Your task to perform on an android device: What's the weather today? Image 0: 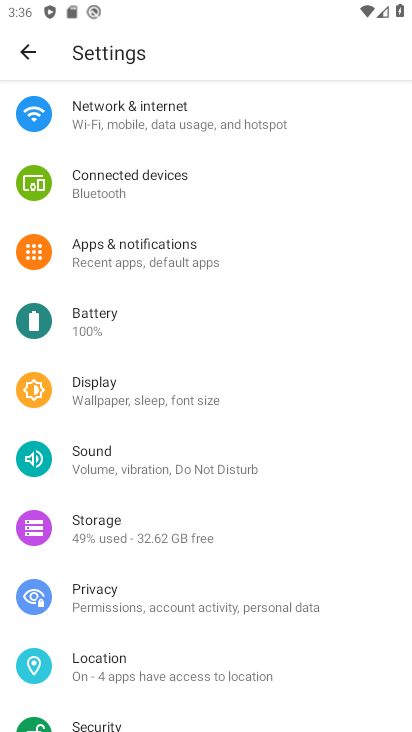
Step 0: press home button
Your task to perform on an android device: What's the weather today? Image 1: 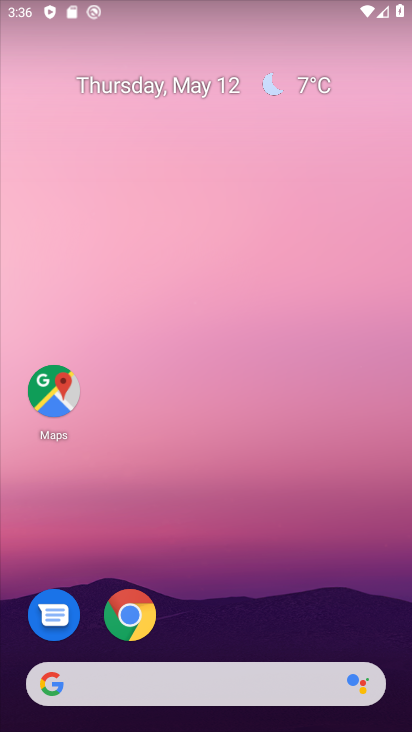
Step 1: click (299, 77)
Your task to perform on an android device: What's the weather today? Image 2: 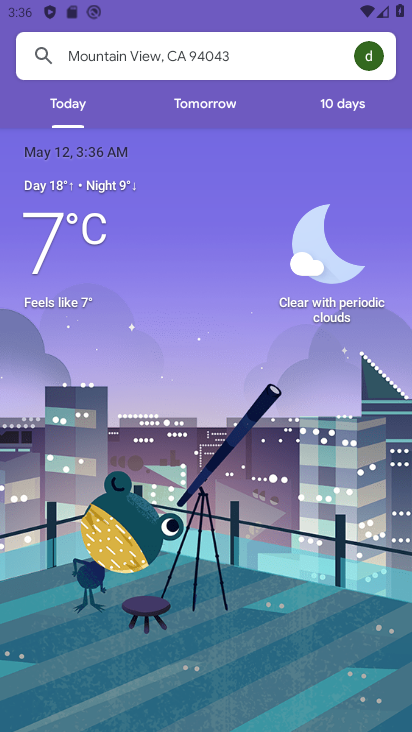
Step 2: task complete